Your task to perform on an android device: change the clock style Image 0: 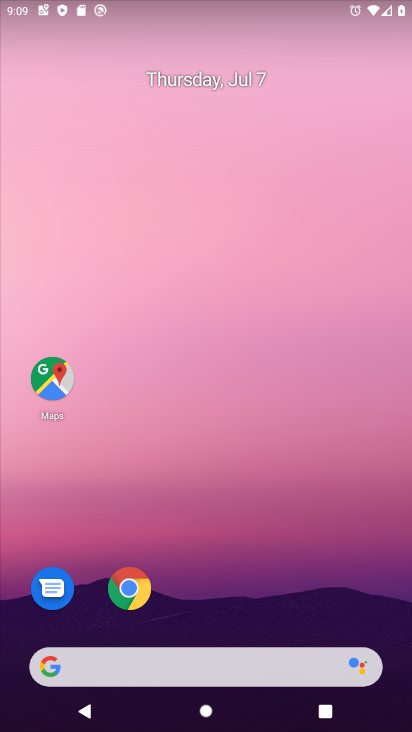
Step 0: drag from (217, 623) to (263, 68)
Your task to perform on an android device: change the clock style Image 1: 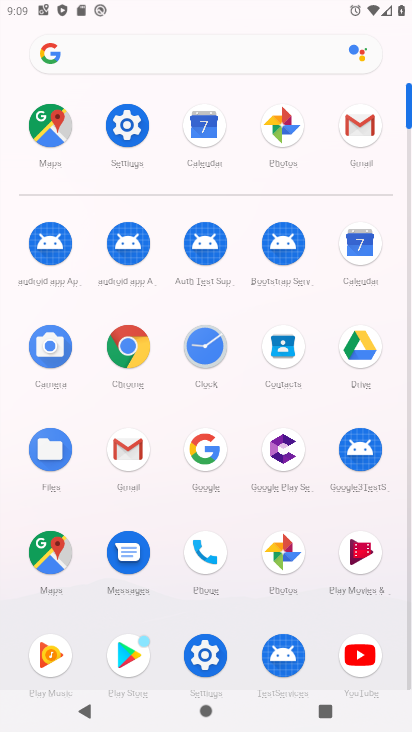
Step 1: click (203, 341)
Your task to perform on an android device: change the clock style Image 2: 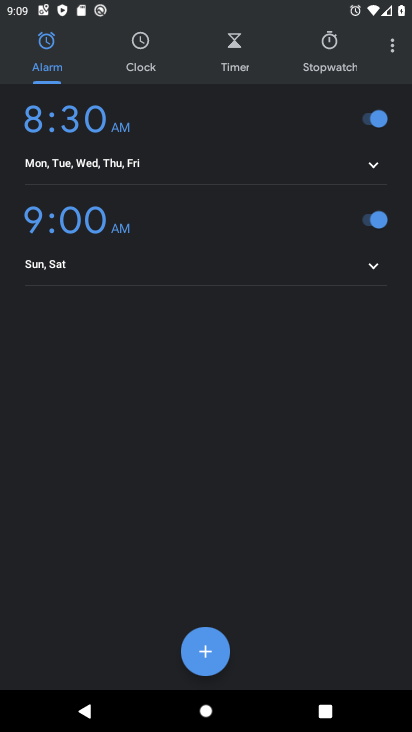
Step 2: click (394, 52)
Your task to perform on an android device: change the clock style Image 3: 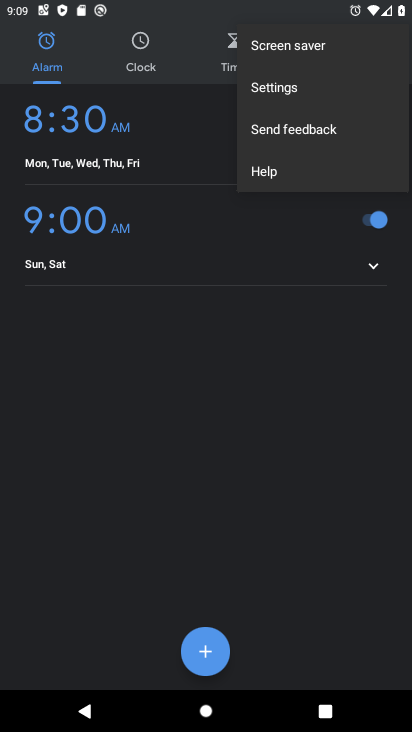
Step 3: click (294, 86)
Your task to perform on an android device: change the clock style Image 4: 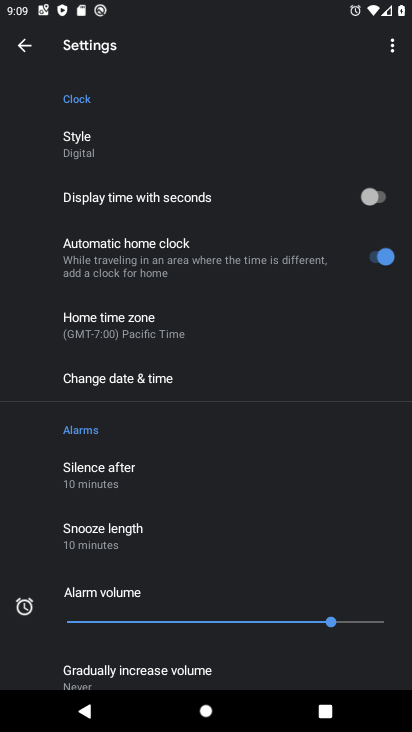
Step 4: click (114, 142)
Your task to perform on an android device: change the clock style Image 5: 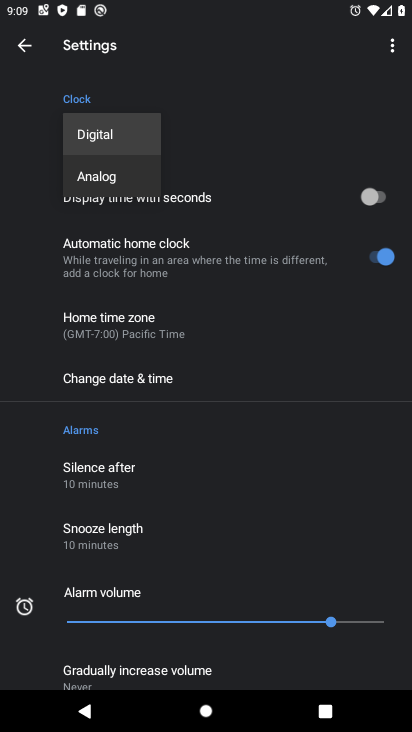
Step 5: click (126, 178)
Your task to perform on an android device: change the clock style Image 6: 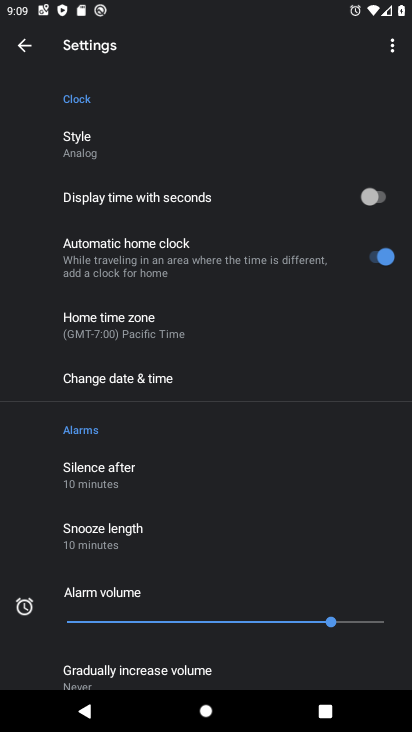
Step 6: task complete